Your task to perform on an android device: Turn on the flashlight Image 0: 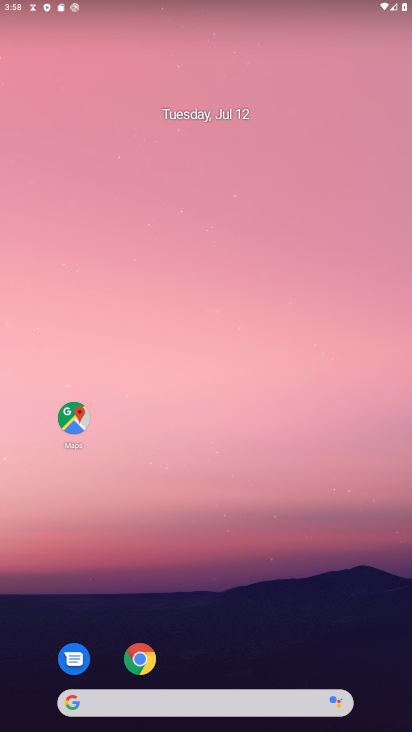
Step 0: drag from (209, 8) to (206, 537)
Your task to perform on an android device: Turn on the flashlight Image 1: 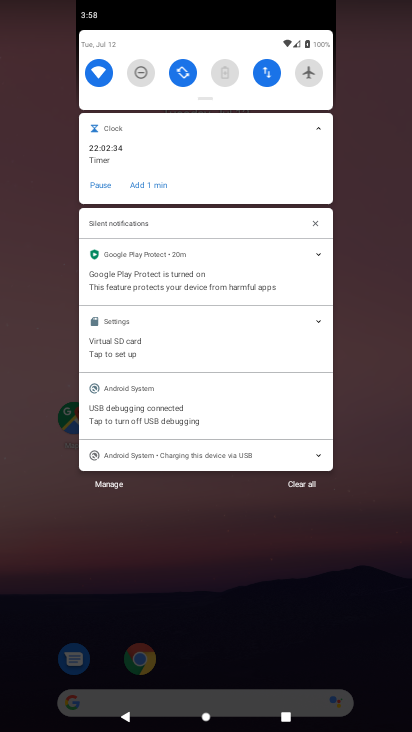
Step 1: task complete